Your task to perform on an android device: Open Chrome and go to settings Image 0: 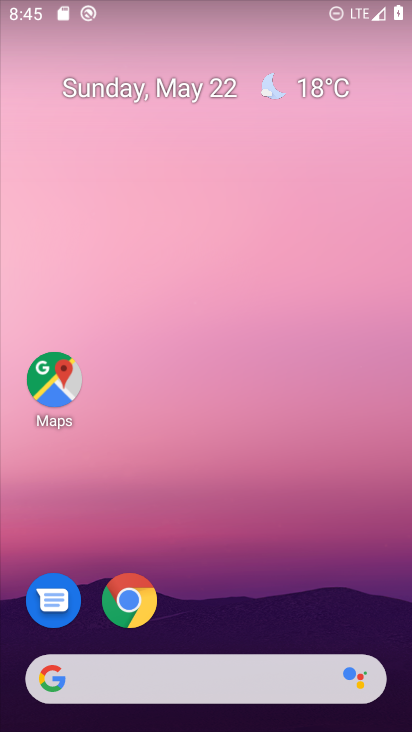
Step 0: drag from (320, 612) to (241, 4)
Your task to perform on an android device: Open Chrome and go to settings Image 1: 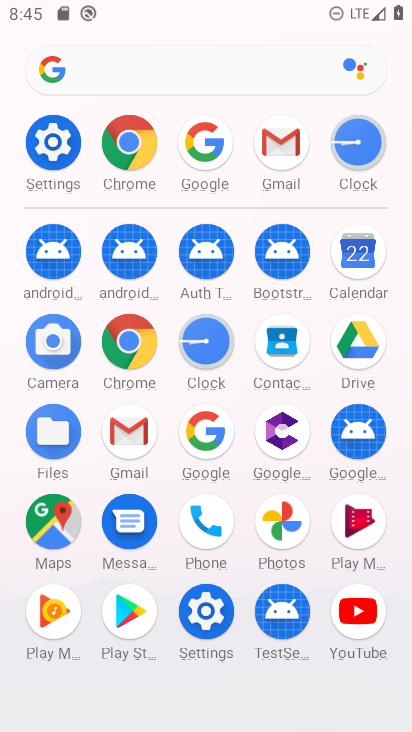
Step 1: click (137, 145)
Your task to perform on an android device: Open Chrome and go to settings Image 2: 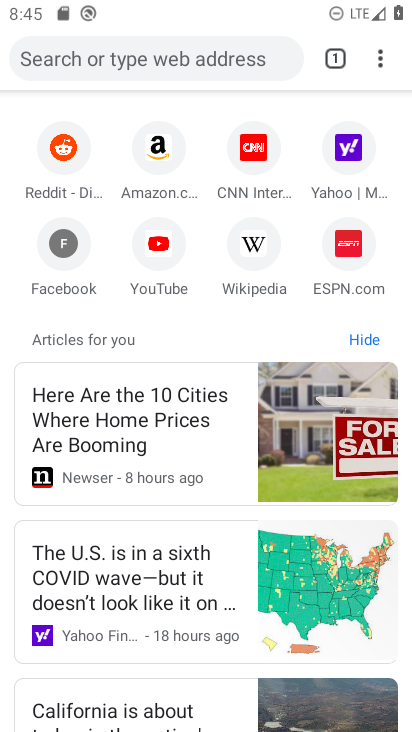
Step 2: click (381, 47)
Your task to perform on an android device: Open Chrome and go to settings Image 3: 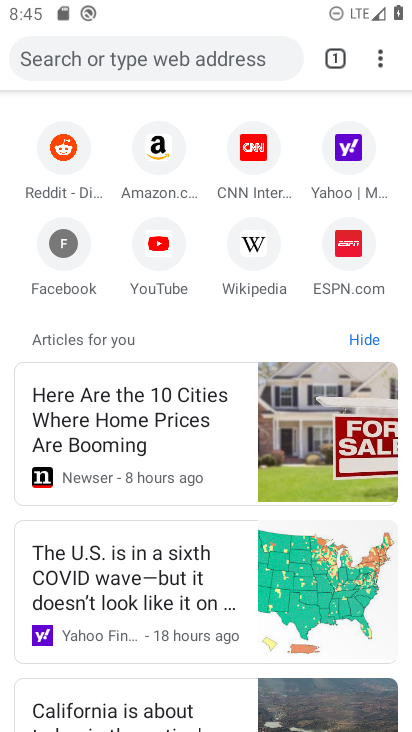
Step 3: click (380, 56)
Your task to perform on an android device: Open Chrome and go to settings Image 4: 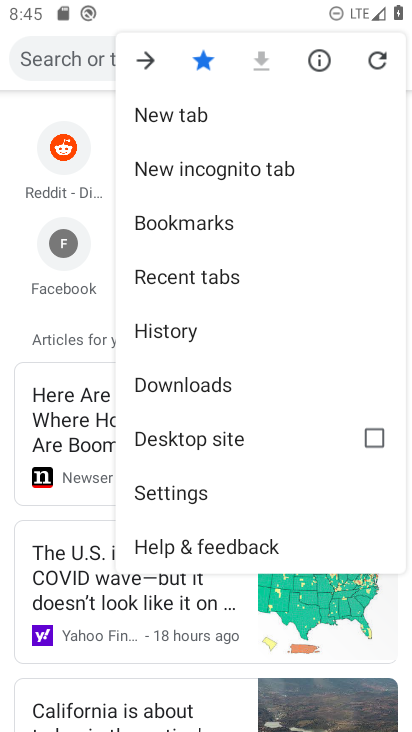
Step 4: click (175, 491)
Your task to perform on an android device: Open Chrome and go to settings Image 5: 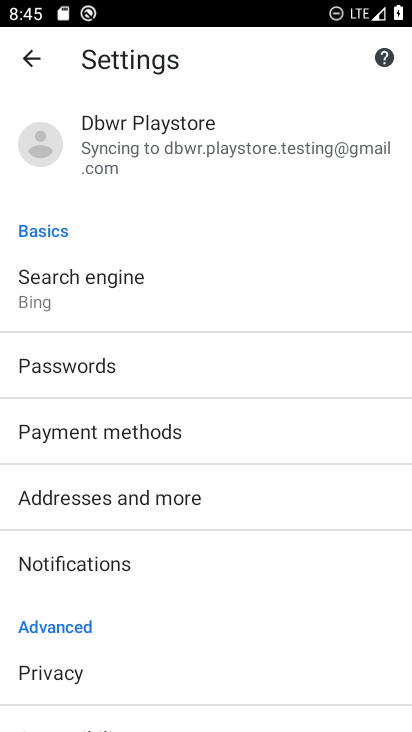
Step 5: task complete